Your task to perform on an android device: Show the shopping cart on costco. Image 0: 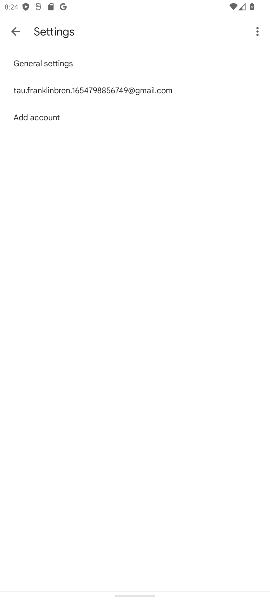
Step 0: press home button
Your task to perform on an android device: Show the shopping cart on costco. Image 1: 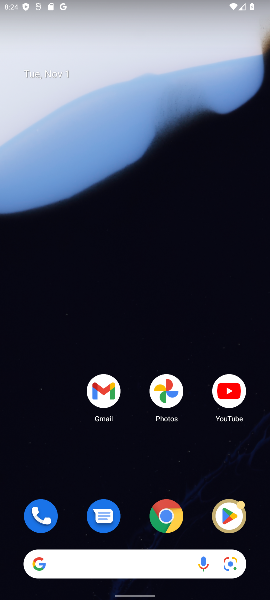
Step 1: drag from (141, 483) to (175, 85)
Your task to perform on an android device: Show the shopping cart on costco. Image 2: 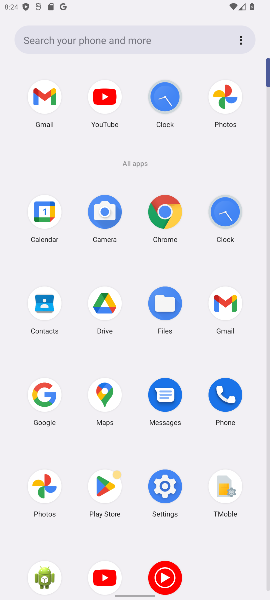
Step 2: click (160, 213)
Your task to perform on an android device: Show the shopping cart on costco. Image 3: 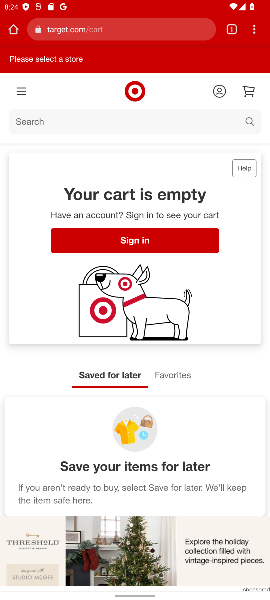
Step 3: click (82, 29)
Your task to perform on an android device: Show the shopping cart on costco. Image 4: 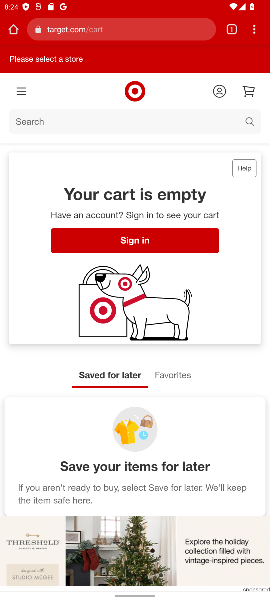
Step 4: click (82, 29)
Your task to perform on an android device: Show the shopping cart on costco. Image 5: 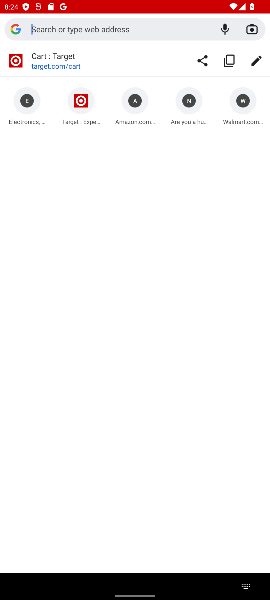
Step 5: type "costco"
Your task to perform on an android device: Show the shopping cart on costco. Image 6: 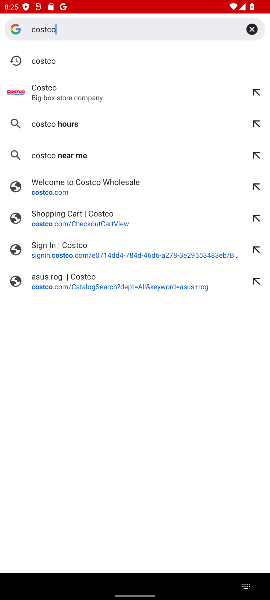
Step 6: click (52, 90)
Your task to perform on an android device: Show the shopping cart on costco. Image 7: 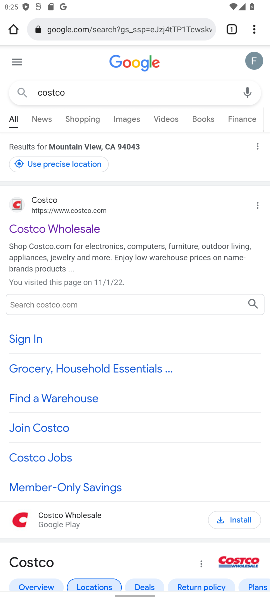
Step 7: click (67, 230)
Your task to perform on an android device: Show the shopping cart on costco. Image 8: 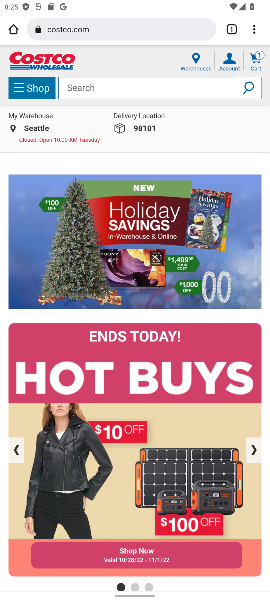
Step 8: click (251, 56)
Your task to perform on an android device: Show the shopping cart on costco. Image 9: 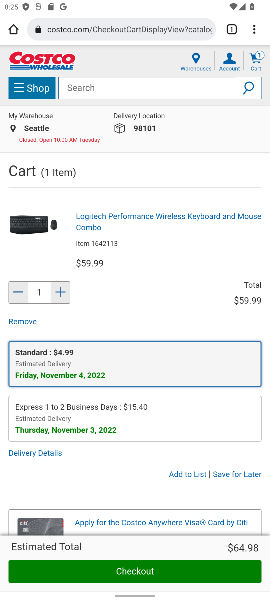
Step 9: click (17, 291)
Your task to perform on an android device: Show the shopping cart on costco. Image 10: 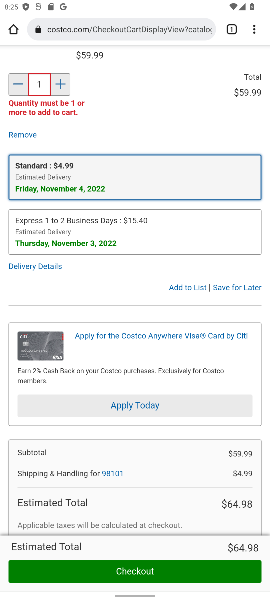
Step 10: click (13, 81)
Your task to perform on an android device: Show the shopping cart on costco. Image 11: 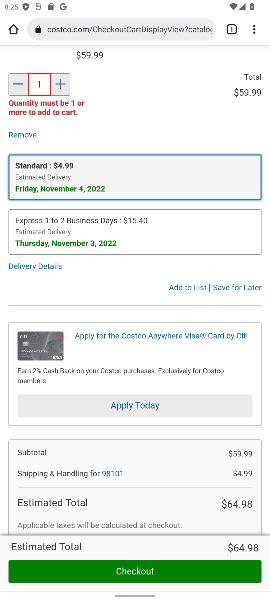
Step 11: drag from (162, 168) to (176, 482)
Your task to perform on an android device: Show the shopping cart on costco. Image 12: 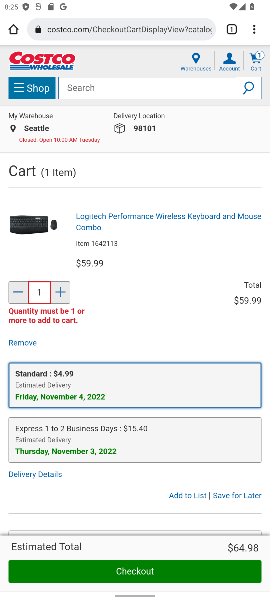
Step 12: click (32, 340)
Your task to perform on an android device: Show the shopping cart on costco. Image 13: 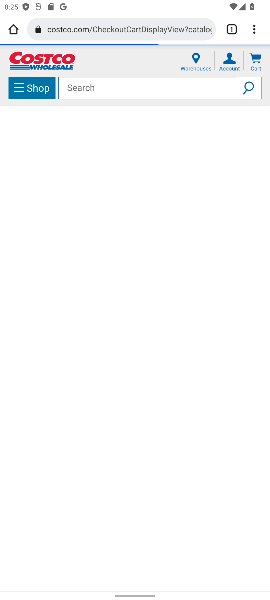
Step 13: click (25, 341)
Your task to perform on an android device: Show the shopping cart on costco. Image 14: 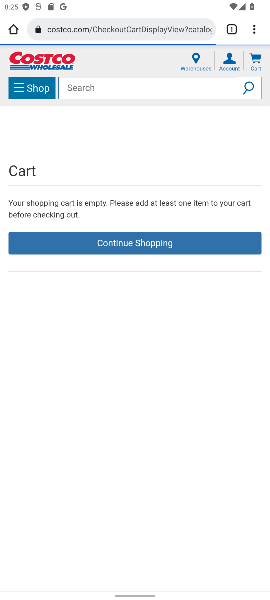
Step 14: click (25, 342)
Your task to perform on an android device: Show the shopping cart on costco. Image 15: 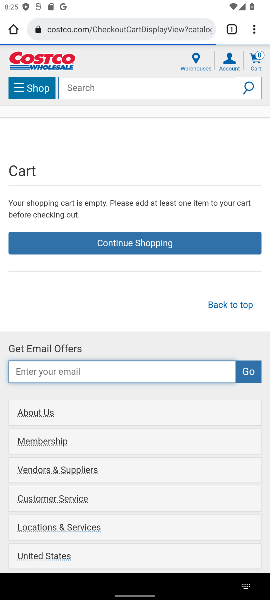
Step 15: task complete